Your task to perform on an android device: Do I have any events today? Image 0: 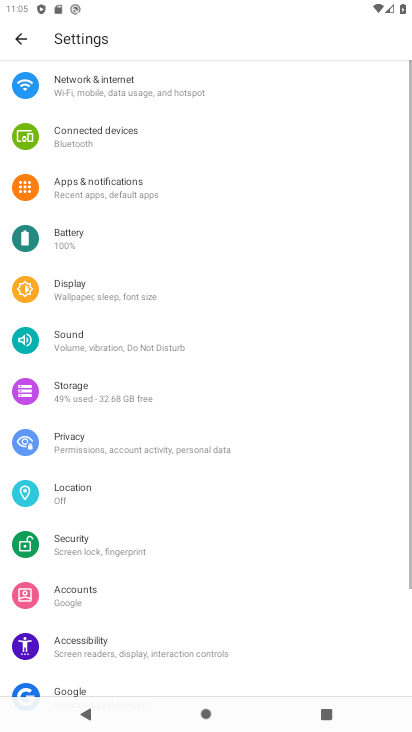
Step 0: press home button
Your task to perform on an android device: Do I have any events today? Image 1: 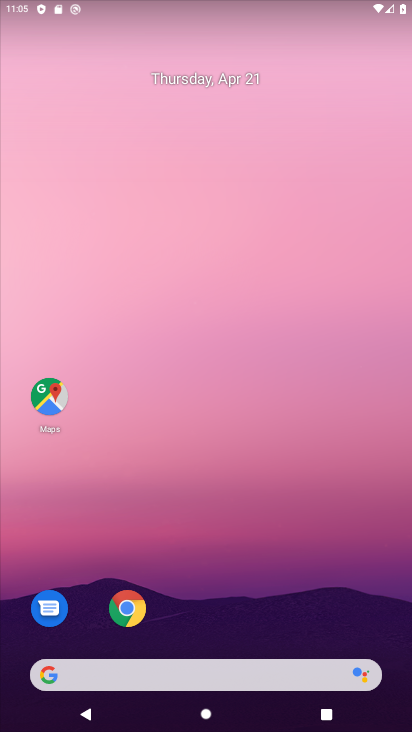
Step 1: drag from (176, 537) to (110, 99)
Your task to perform on an android device: Do I have any events today? Image 2: 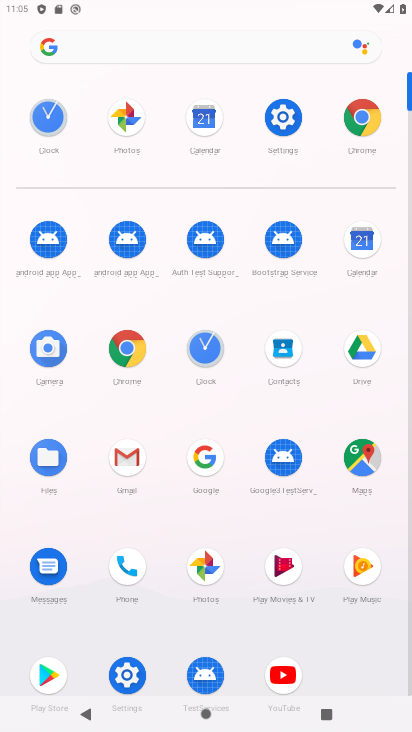
Step 2: click (194, 120)
Your task to perform on an android device: Do I have any events today? Image 3: 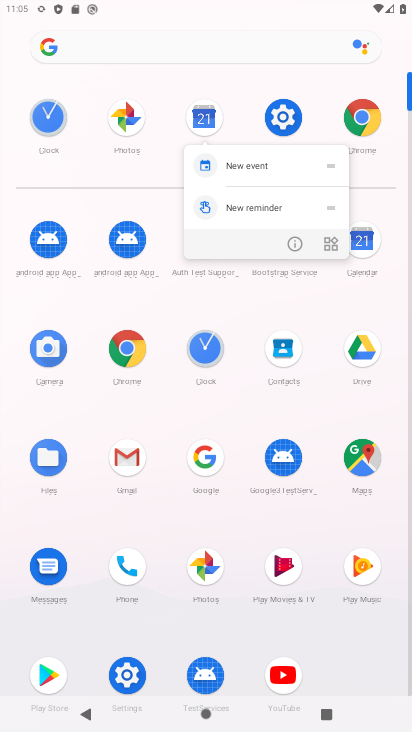
Step 3: click (202, 120)
Your task to perform on an android device: Do I have any events today? Image 4: 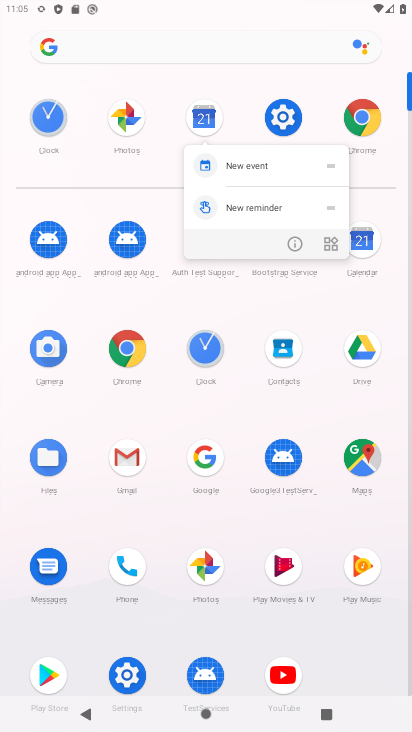
Step 4: click (205, 107)
Your task to perform on an android device: Do I have any events today? Image 5: 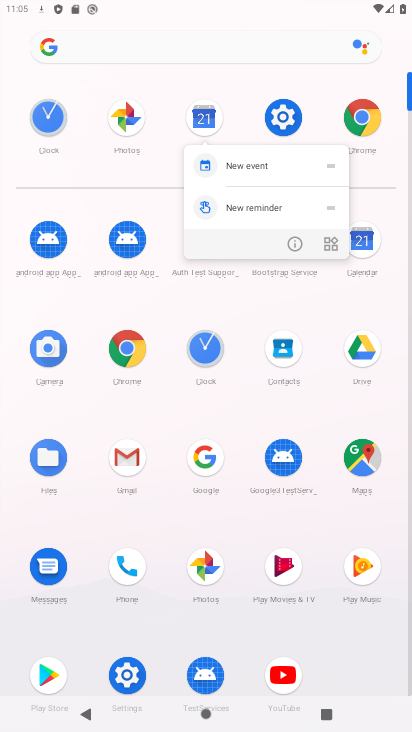
Step 5: click (203, 121)
Your task to perform on an android device: Do I have any events today? Image 6: 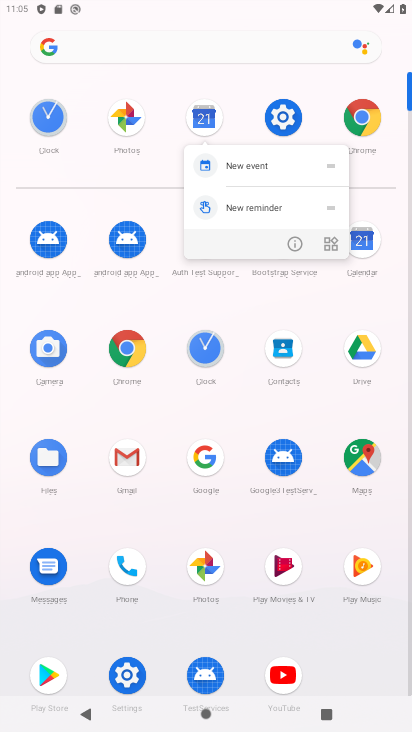
Step 6: click (204, 121)
Your task to perform on an android device: Do I have any events today? Image 7: 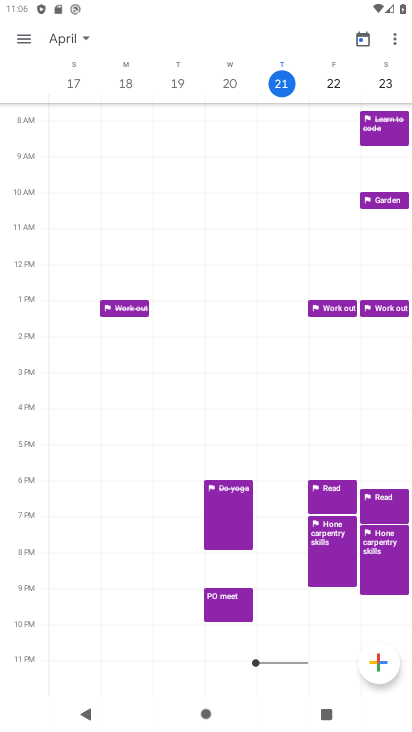
Step 7: click (283, 82)
Your task to perform on an android device: Do I have any events today? Image 8: 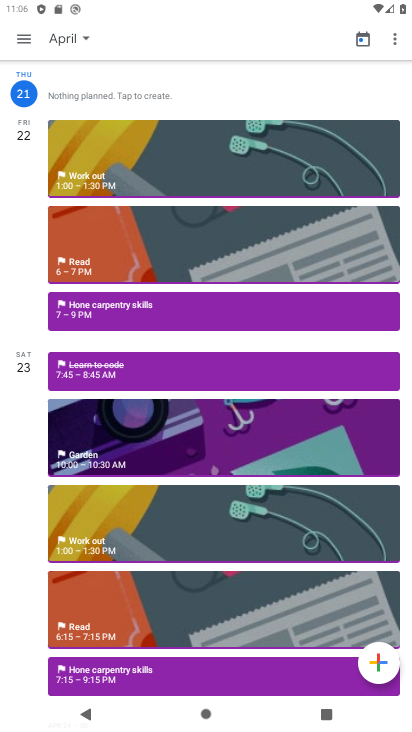
Step 8: task complete